Your task to perform on an android device: Clear all items from cart on target. Search for razer nari on target, select the first entry, and add it to the cart. Image 0: 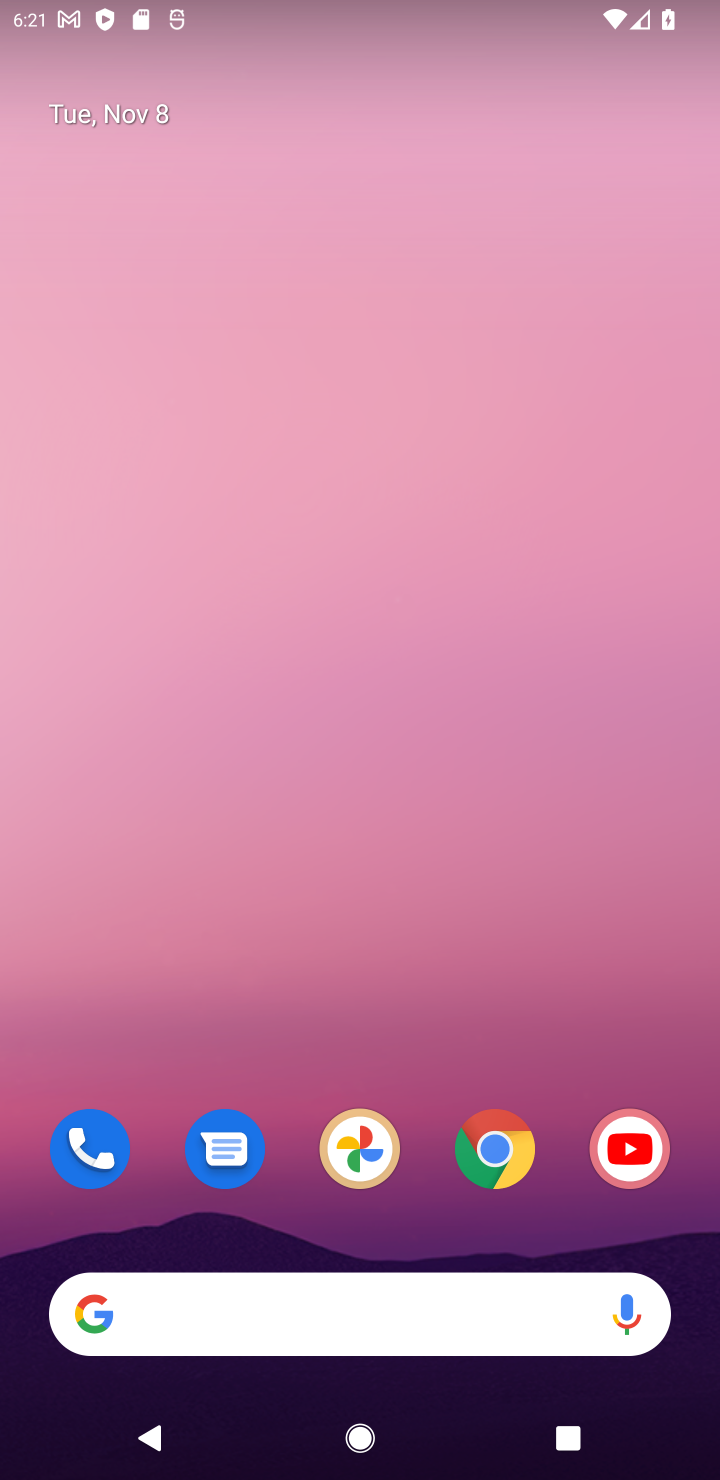
Step 0: click (518, 1131)
Your task to perform on an android device: Clear all items from cart on target. Search for razer nari on target, select the first entry, and add it to the cart. Image 1: 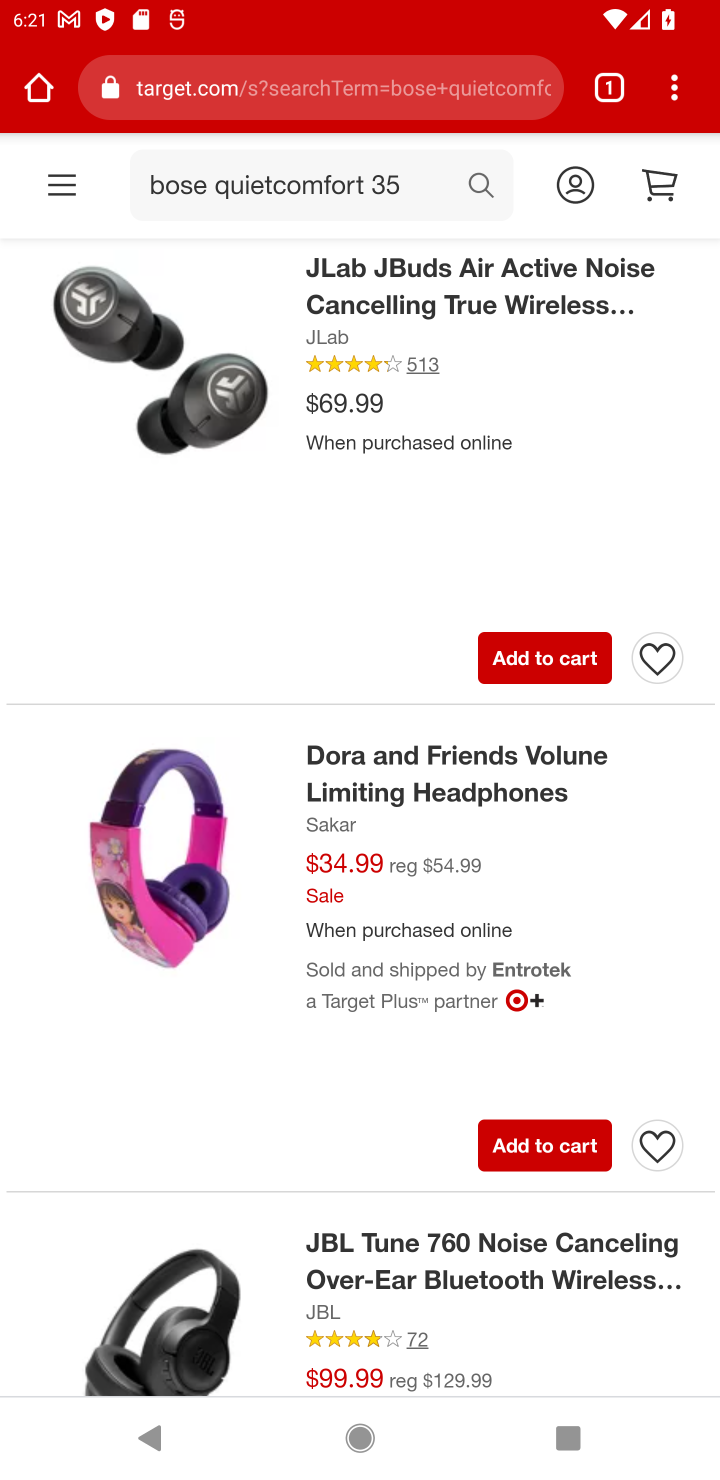
Step 1: click (655, 181)
Your task to perform on an android device: Clear all items from cart on target. Search for razer nari on target, select the first entry, and add it to the cart. Image 2: 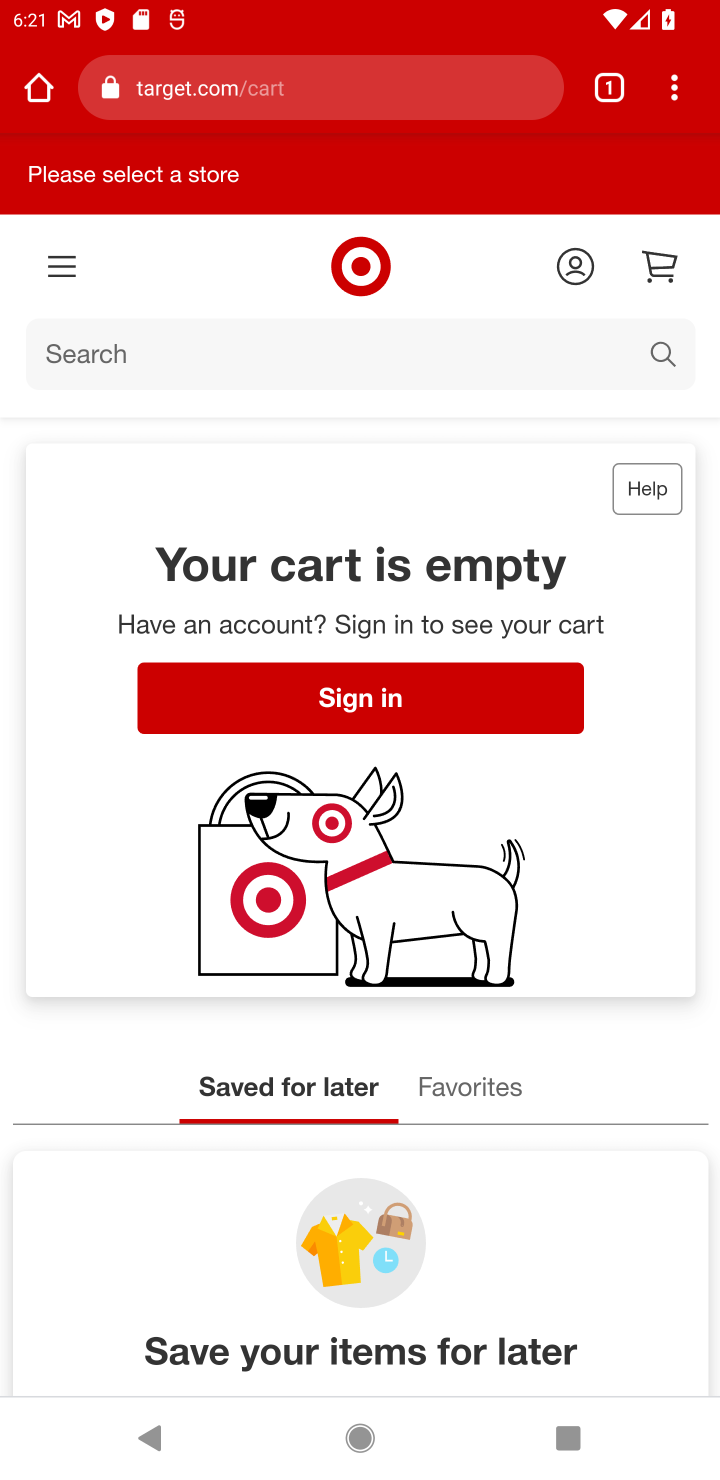
Step 2: click (652, 348)
Your task to perform on an android device: Clear all items from cart on target. Search for razer nari on target, select the first entry, and add it to the cart. Image 3: 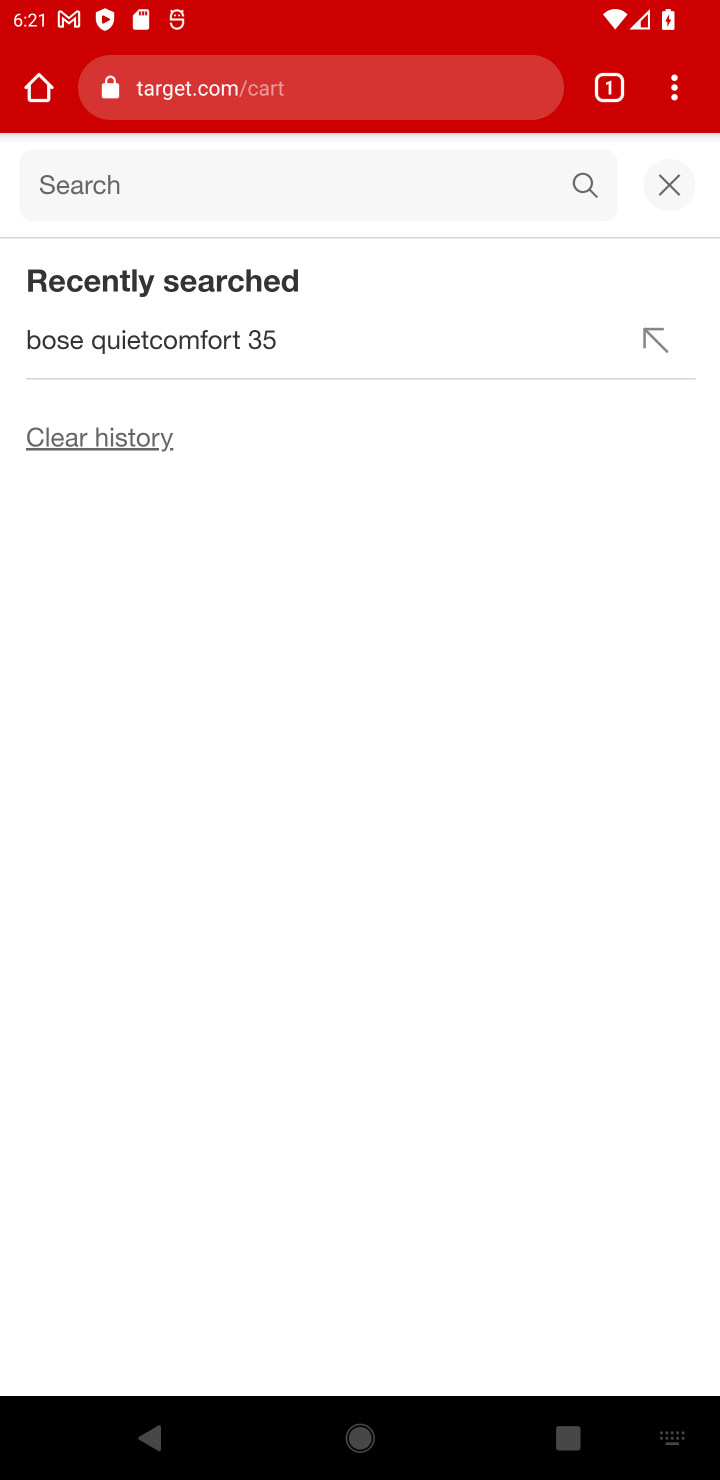
Step 3: type " razer nari"
Your task to perform on an android device: Clear all items from cart on target. Search for razer nari on target, select the first entry, and add it to the cart. Image 4: 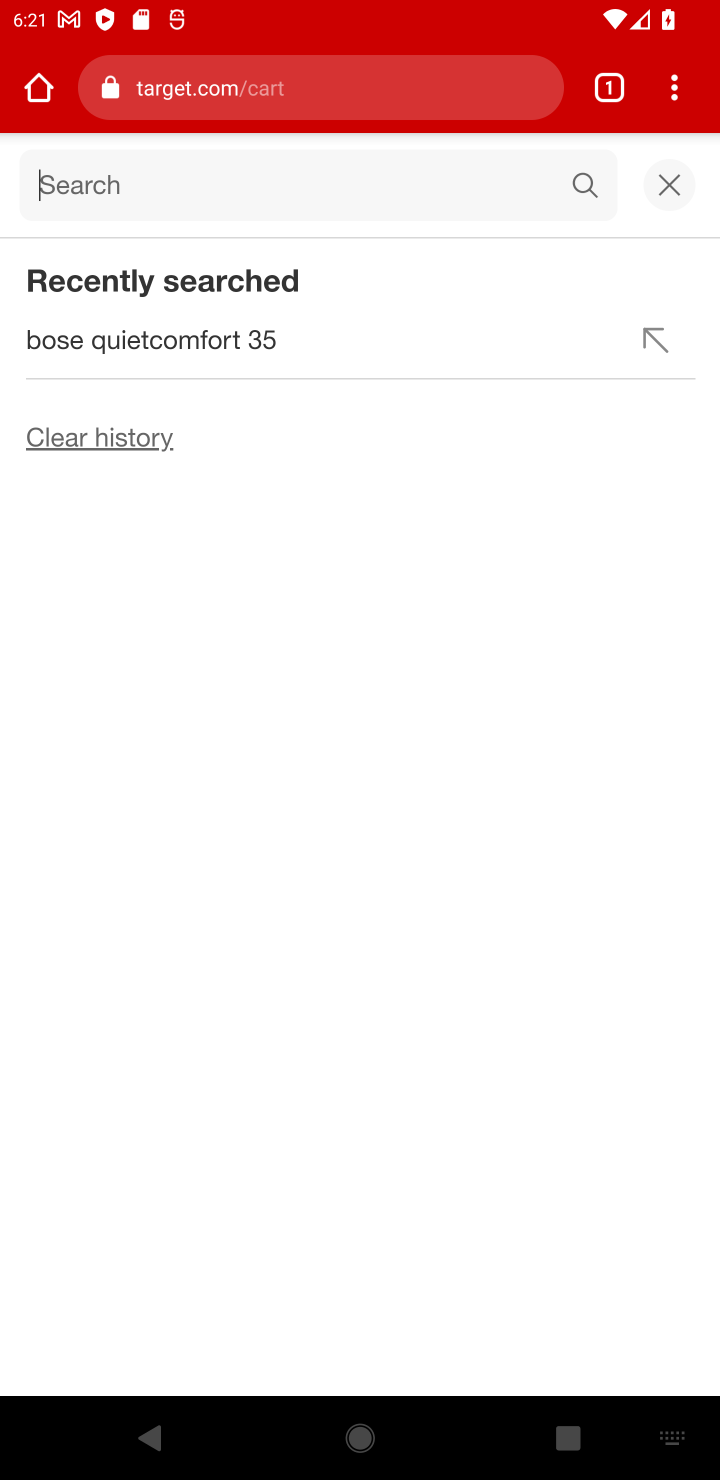
Step 4: press enter
Your task to perform on an android device: Clear all items from cart on target. Search for razer nari on target, select the first entry, and add it to the cart. Image 5: 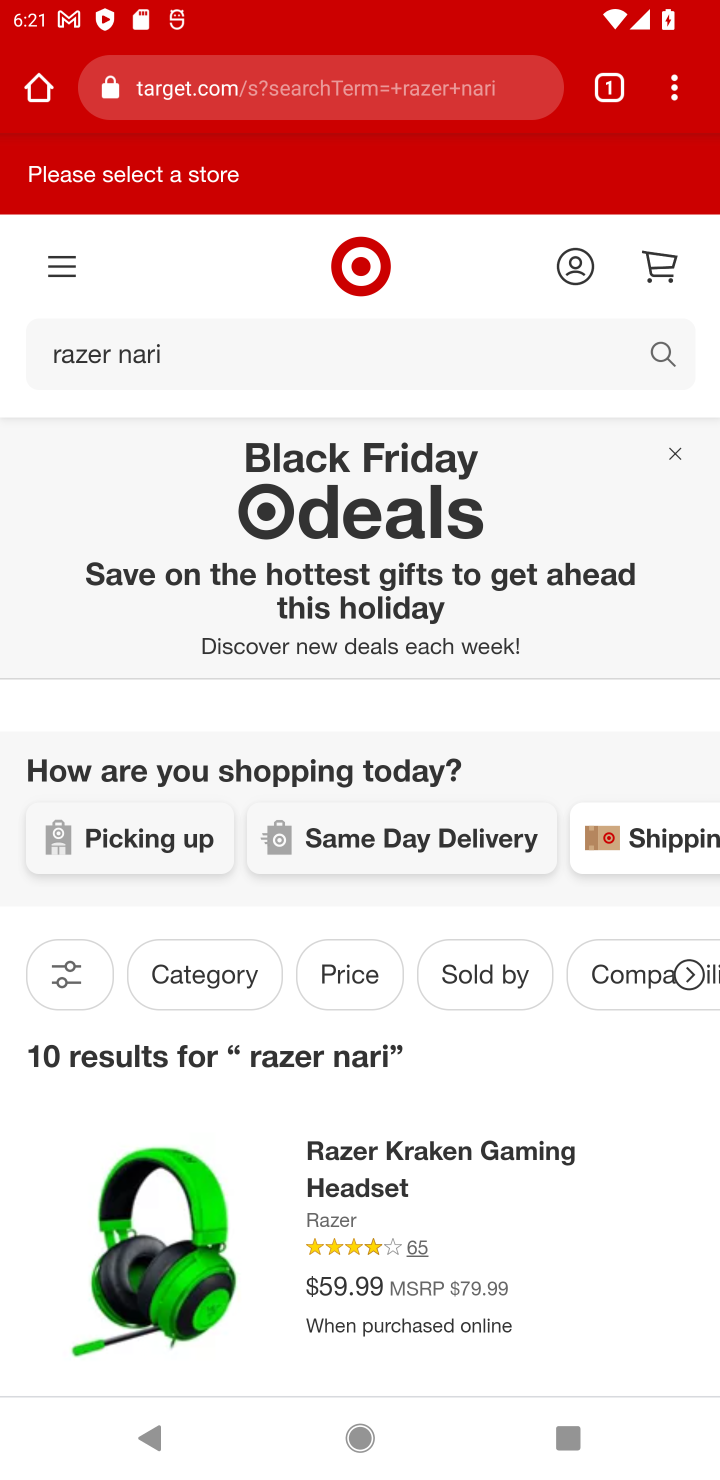
Step 5: task complete